Your task to perform on an android device: turn off wifi Image 0: 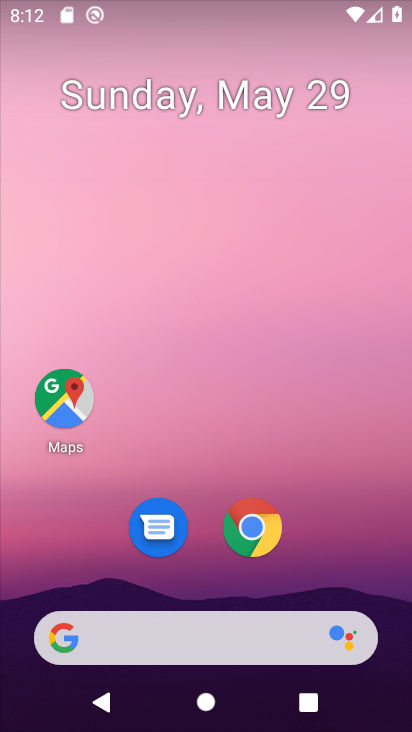
Step 0: press home button
Your task to perform on an android device: turn off wifi Image 1: 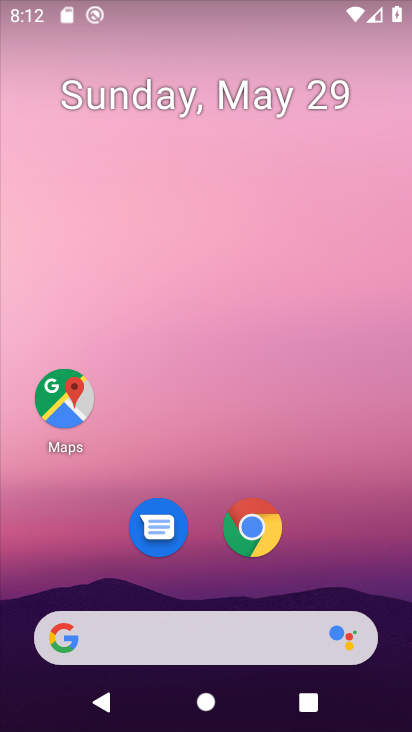
Step 1: drag from (161, 10) to (175, 636)
Your task to perform on an android device: turn off wifi Image 2: 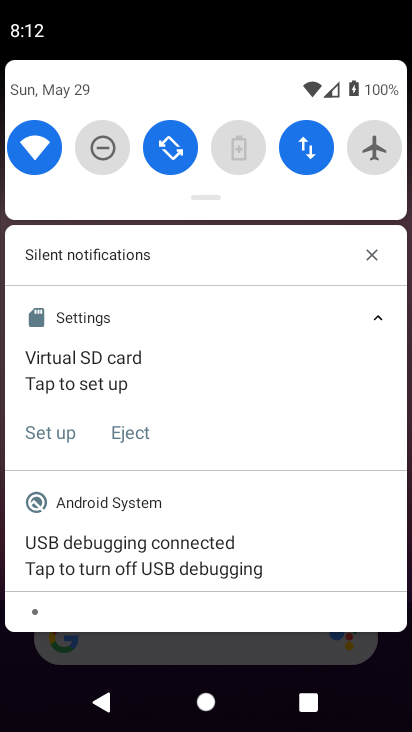
Step 2: click (33, 152)
Your task to perform on an android device: turn off wifi Image 3: 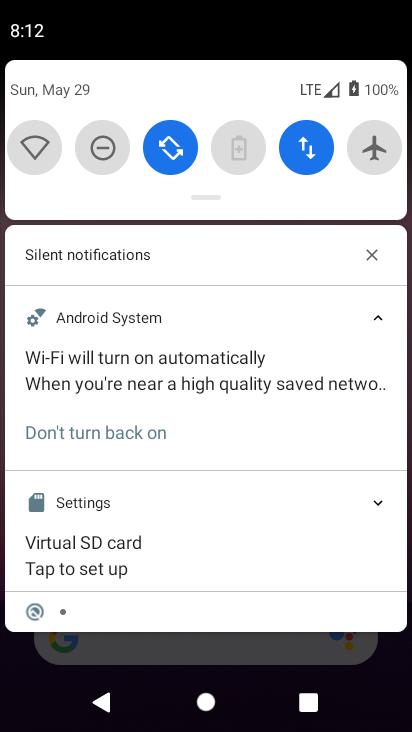
Step 3: task complete